Your task to perform on an android device: Clear all items from cart on bestbuy. Add razer thresher to the cart on bestbuy Image 0: 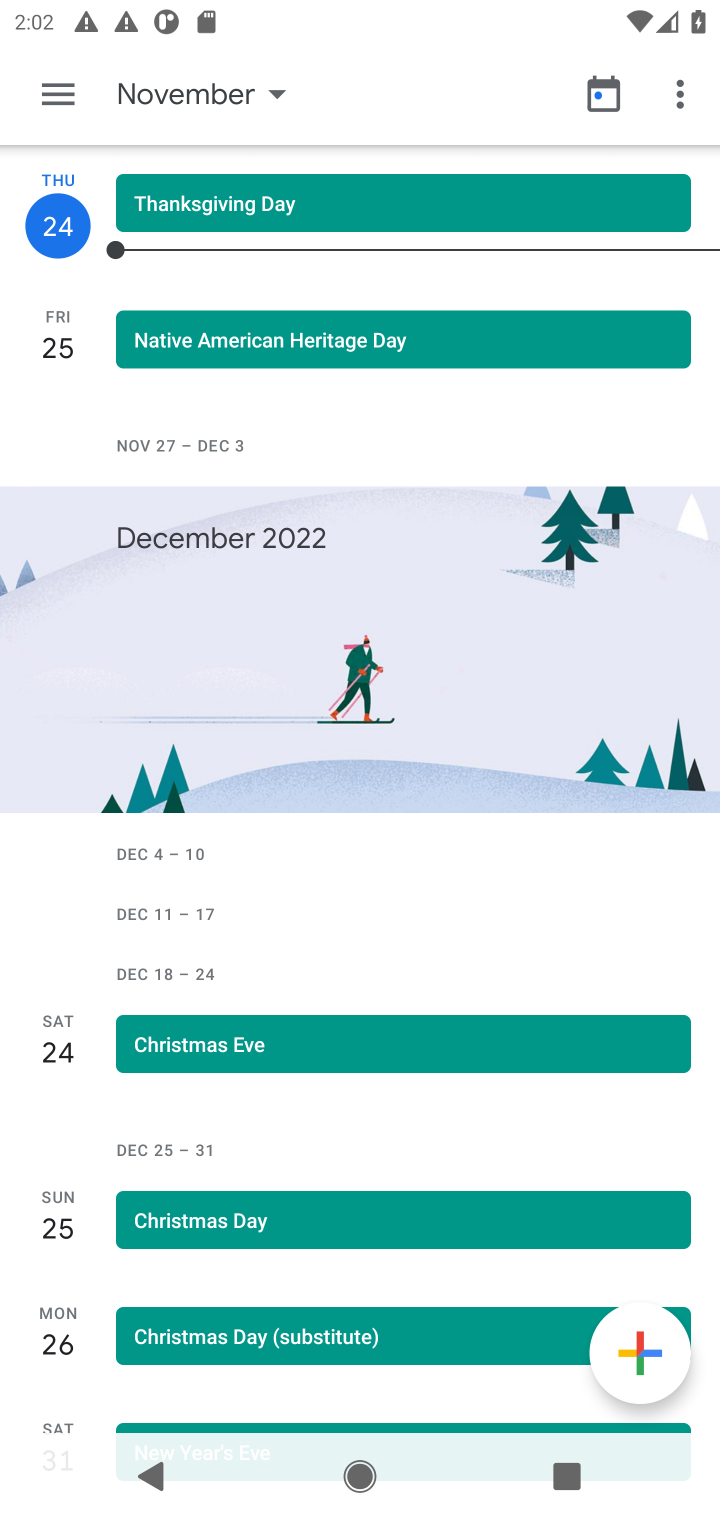
Step 0: press home button
Your task to perform on an android device: Clear all items from cart on bestbuy. Add razer thresher to the cart on bestbuy Image 1: 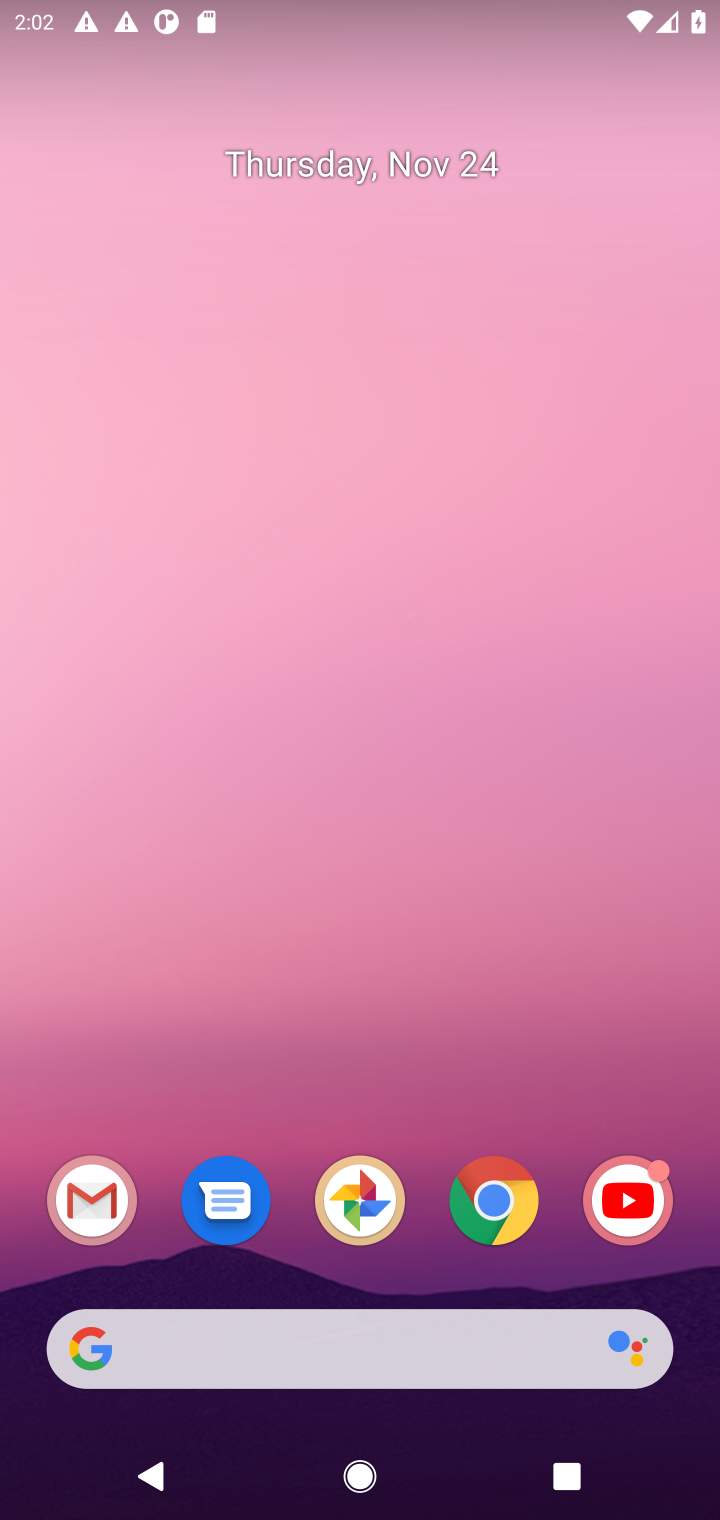
Step 1: click (487, 1342)
Your task to perform on an android device: Clear all items from cart on bestbuy. Add razer thresher to the cart on bestbuy Image 2: 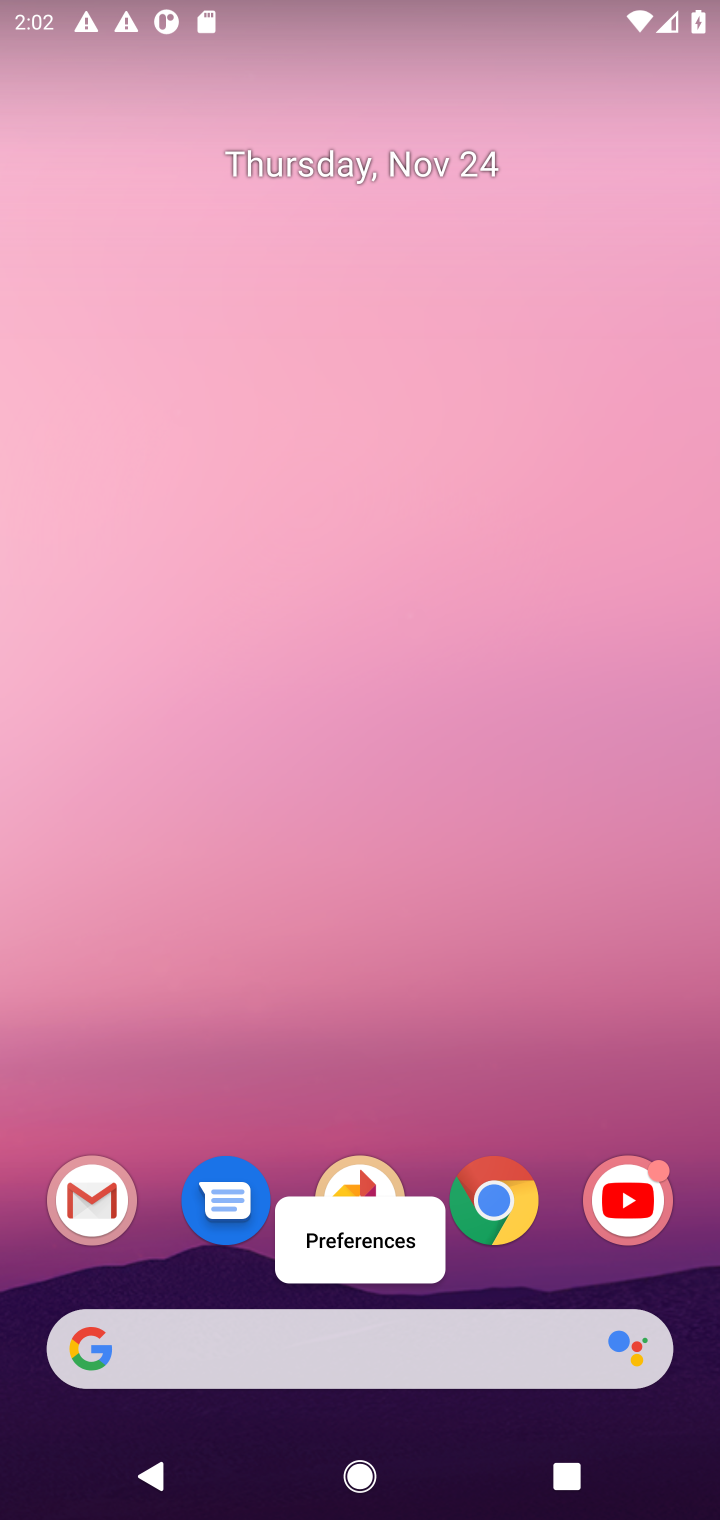
Step 2: type "bestbuy"
Your task to perform on an android device: Clear all items from cart on bestbuy. Add razer thresher to the cart on bestbuy Image 3: 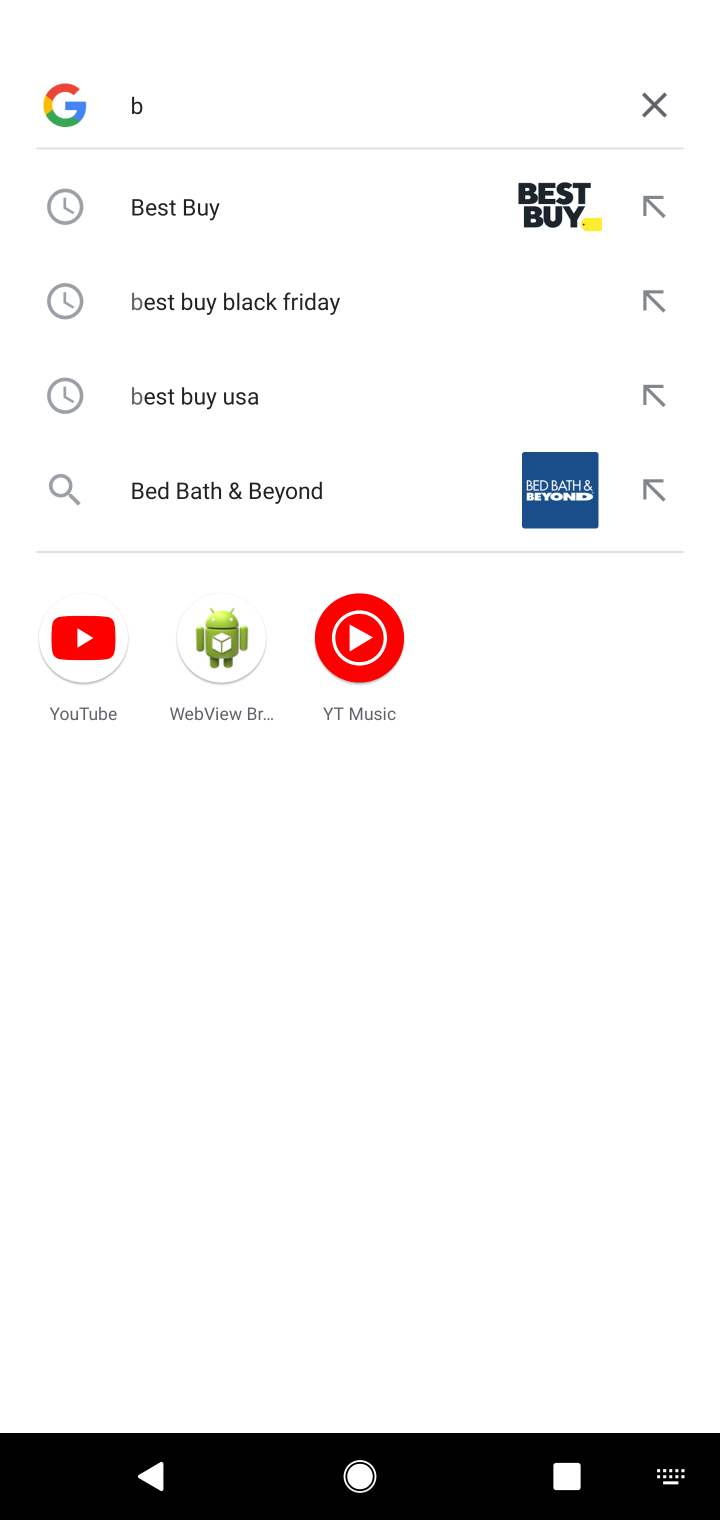
Step 3: click (281, 235)
Your task to perform on an android device: Clear all items from cart on bestbuy. Add razer thresher to the cart on bestbuy Image 4: 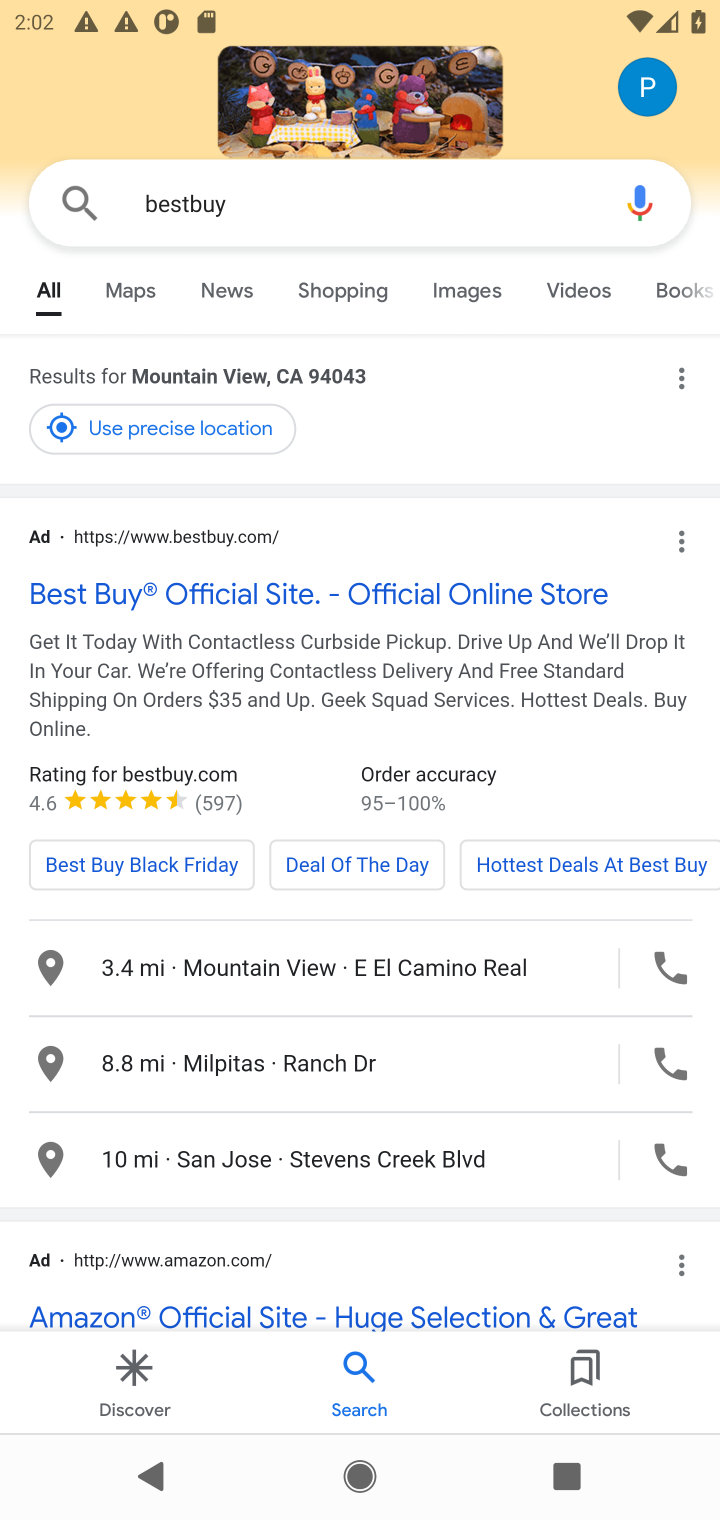
Step 4: click (340, 636)
Your task to perform on an android device: Clear all items from cart on bestbuy. Add razer thresher to the cart on bestbuy Image 5: 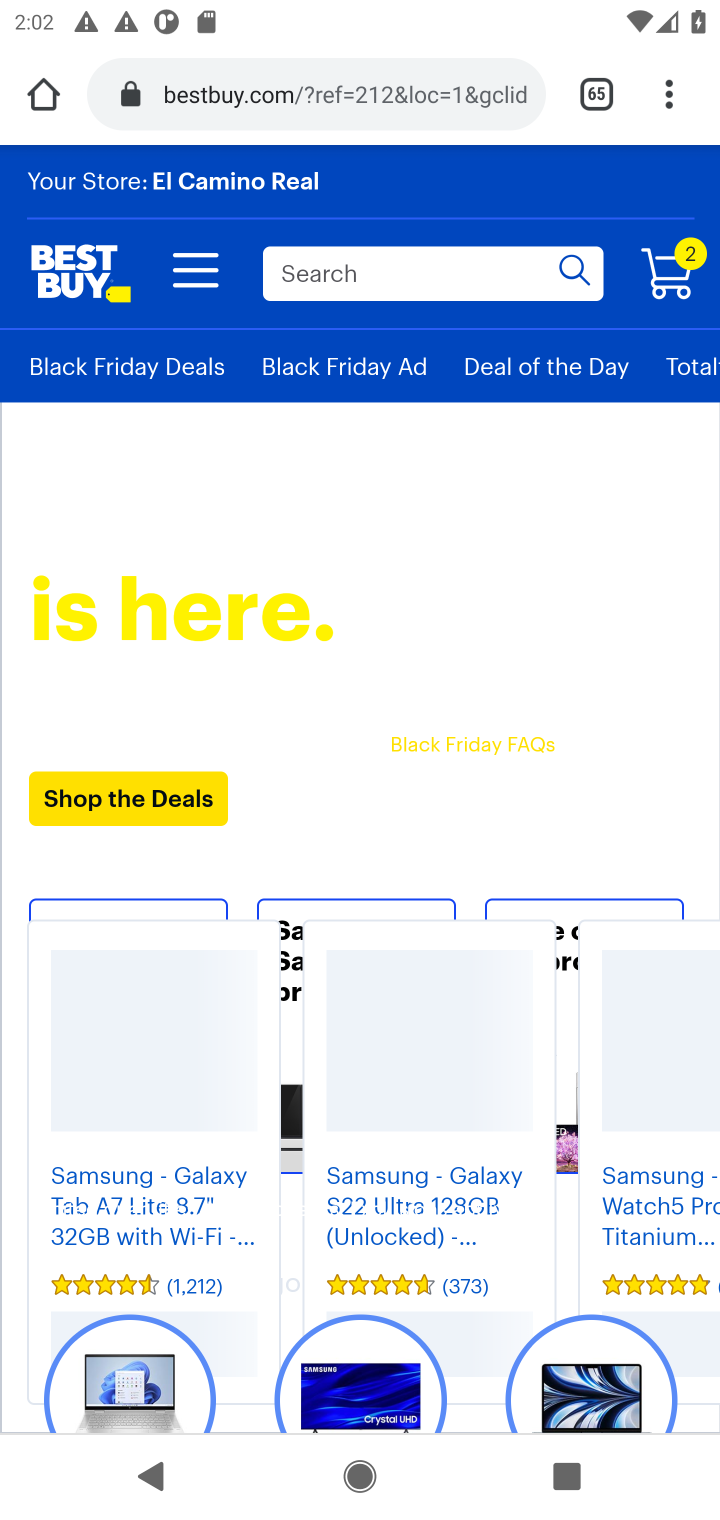
Step 5: click (352, 268)
Your task to perform on an android device: Clear all items from cart on bestbuy. Add razer thresher to the cart on bestbuy Image 6: 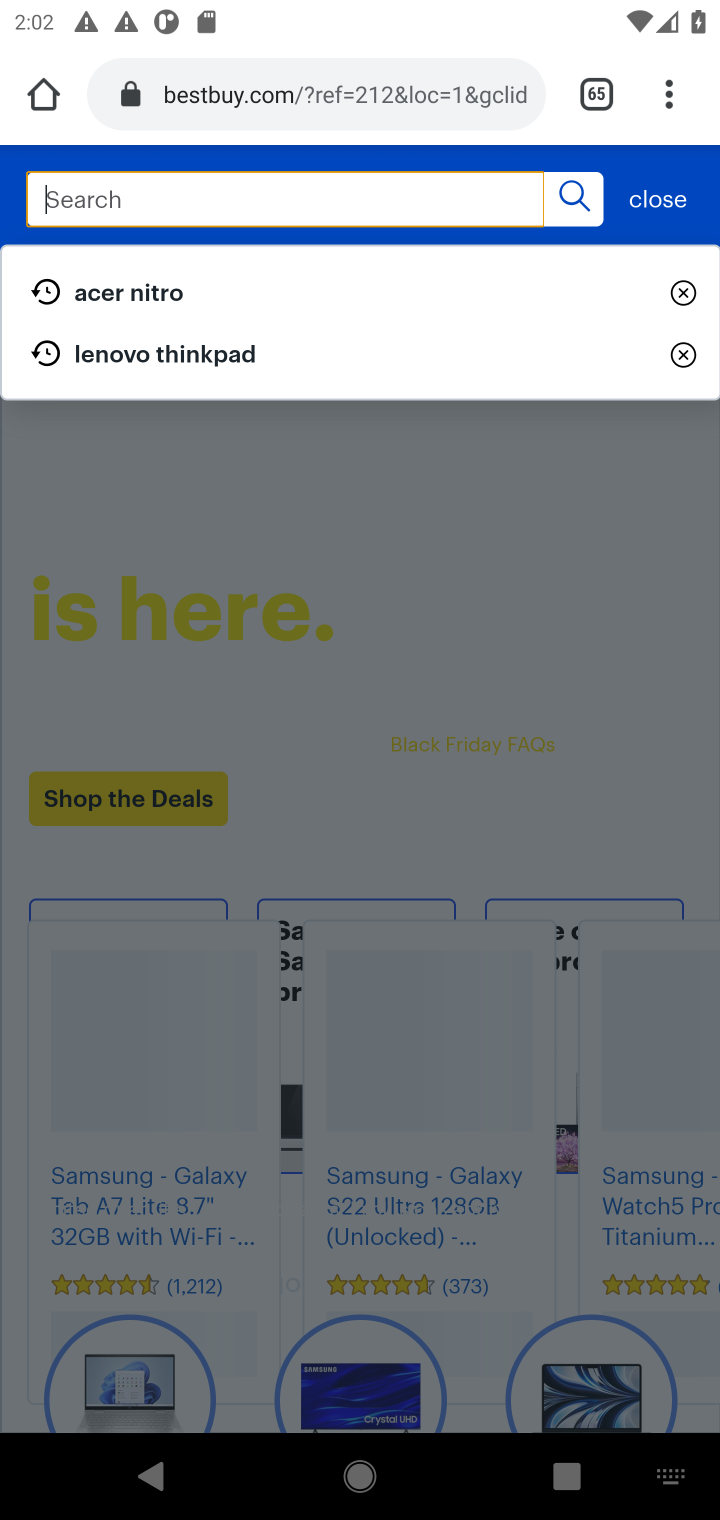
Step 6: type "razer thresher"
Your task to perform on an android device: Clear all items from cart on bestbuy. Add razer thresher to the cart on bestbuy Image 7: 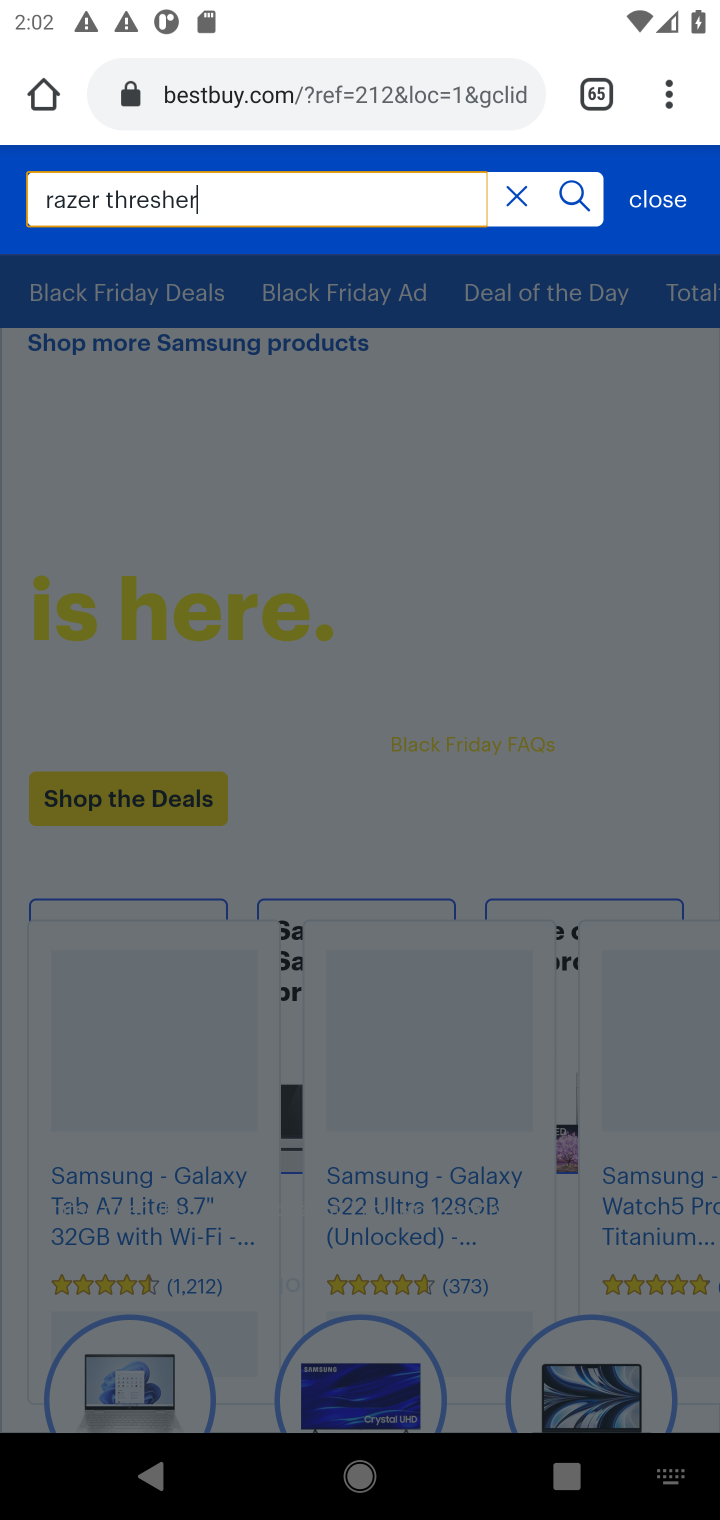
Step 7: click (576, 211)
Your task to perform on an android device: Clear all items from cart on bestbuy. Add razer thresher to the cart on bestbuy Image 8: 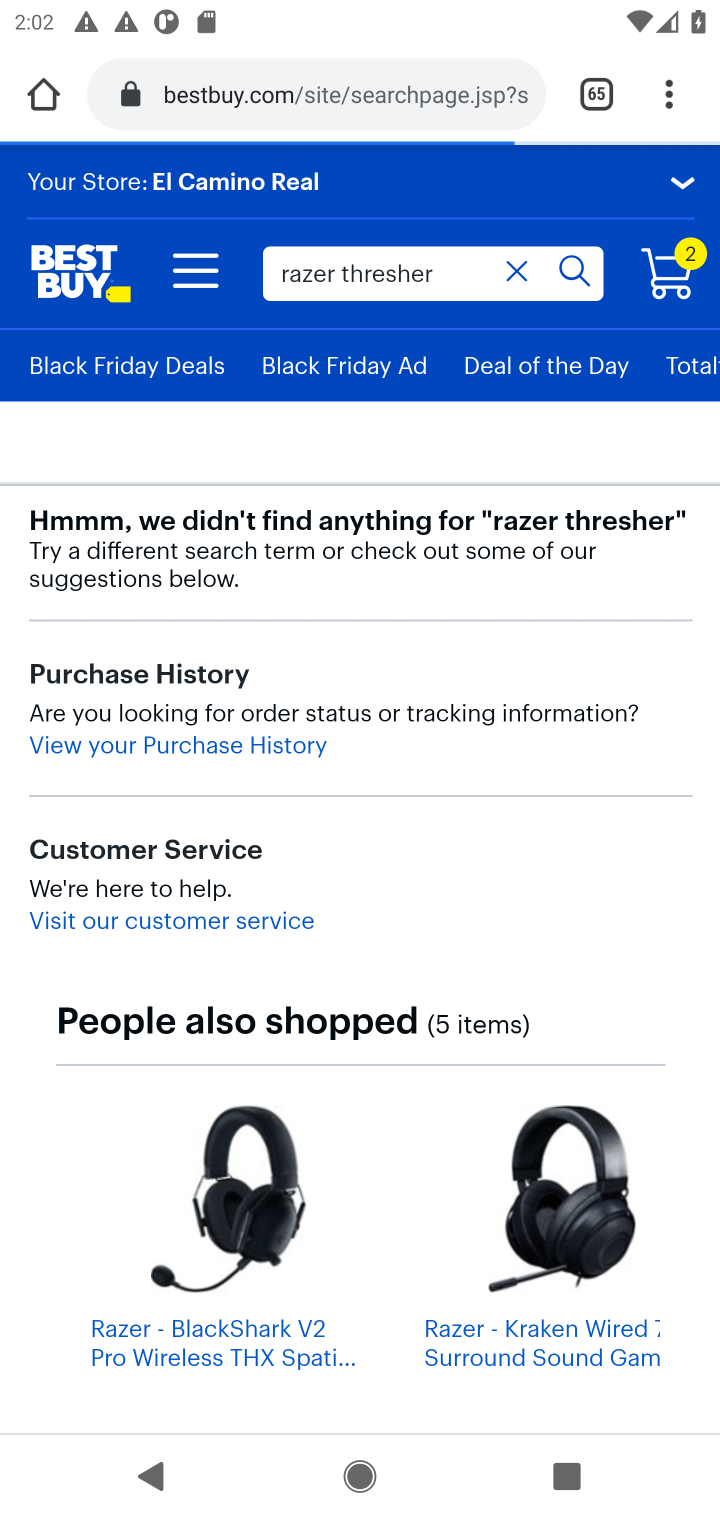
Step 8: drag from (390, 1240) to (386, 644)
Your task to perform on an android device: Clear all items from cart on bestbuy. Add razer thresher to the cart on bestbuy Image 9: 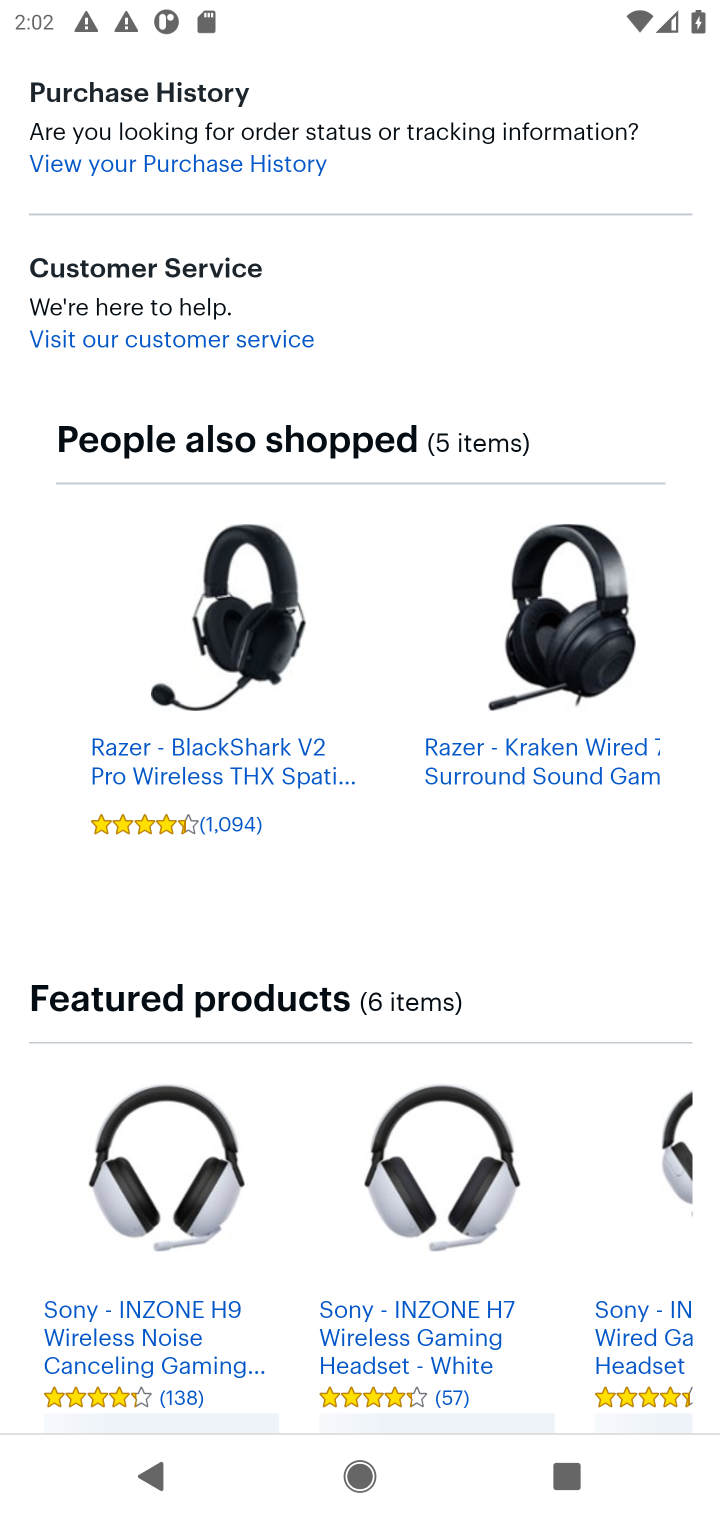
Step 9: click (257, 683)
Your task to perform on an android device: Clear all items from cart on bestbuy. Add razer thresher to the cart on bestbuy Image 10: 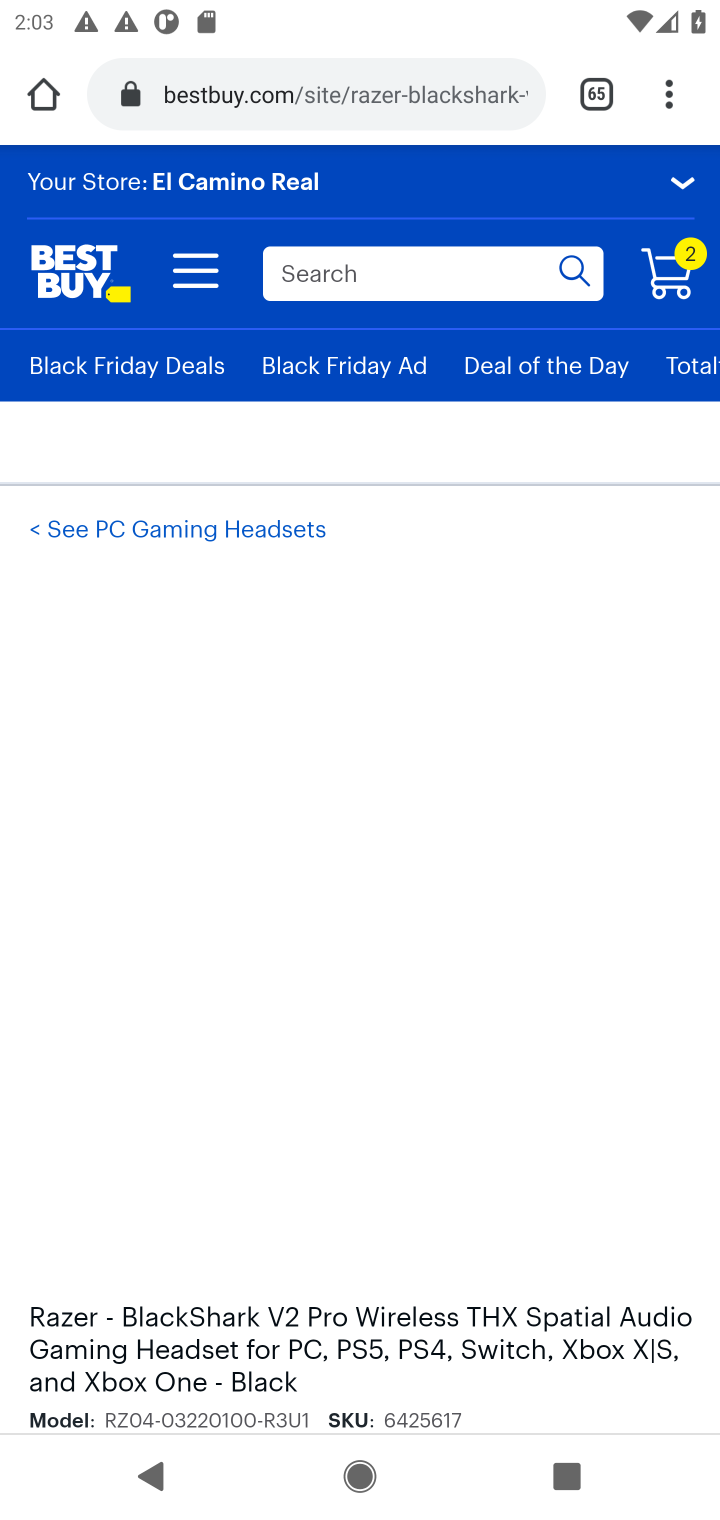
Step 10: task complete